Your task to perform on an android device: Search for Italian restaurants on Maps Image 0: 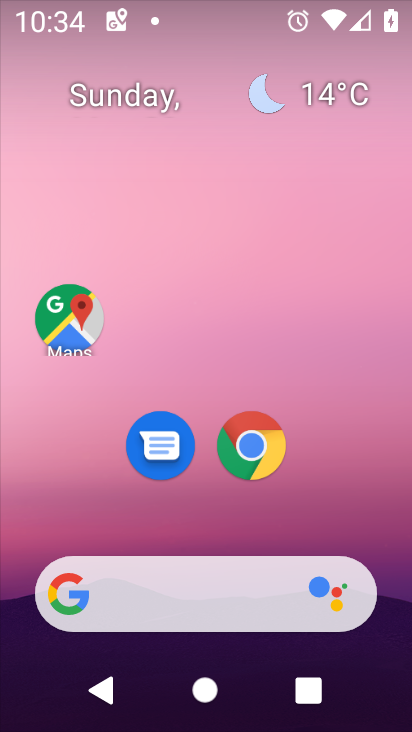
Step 0: drag from (205, 471) to (247, 186)
Your task to perform on an android device: Search for Italian restaurants on Maps Image 1: 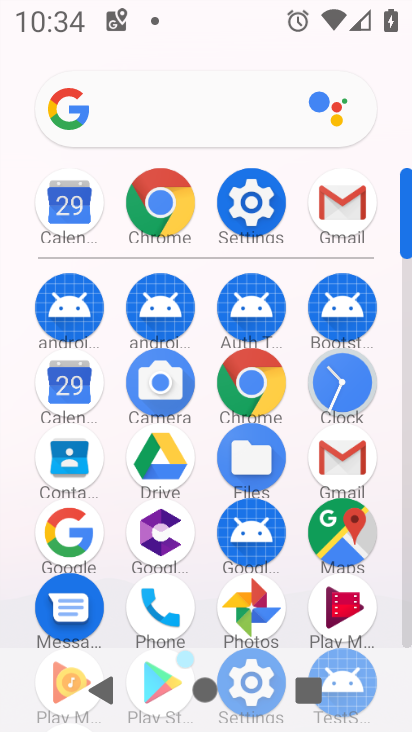
Step 1: click (326, 551)
Your task to perform on an android device: Search for Italian restaurants on Maps Image 2: 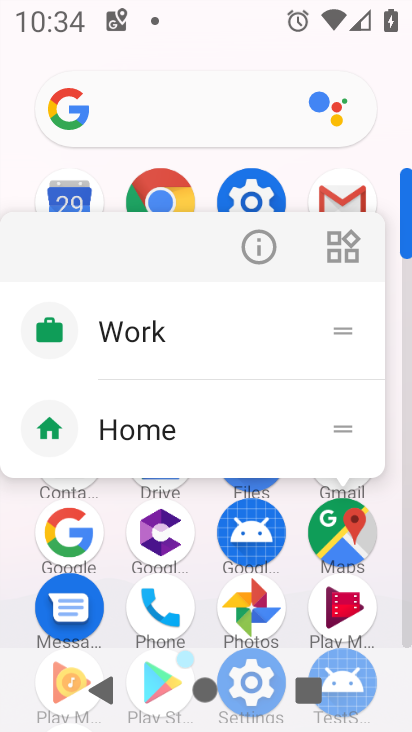
Step 2: click (260, 236)
Your task to perform on an android device: Search for Italian restaurants on Maps Image 3: 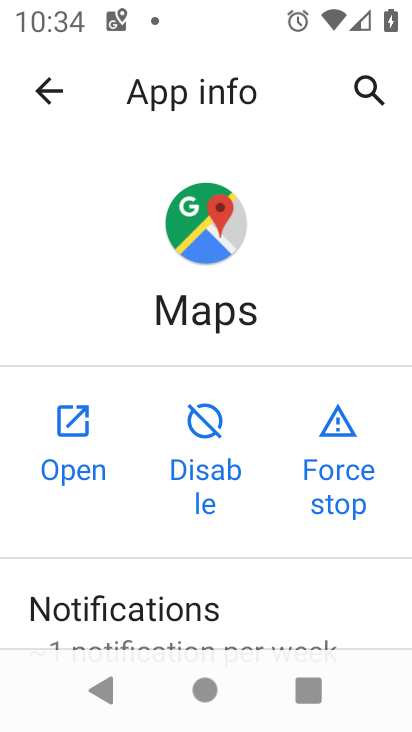
Step 3: click (53, 452)
Your task to perform on an android device: Search for Italian restaurants on Maps Image 4: 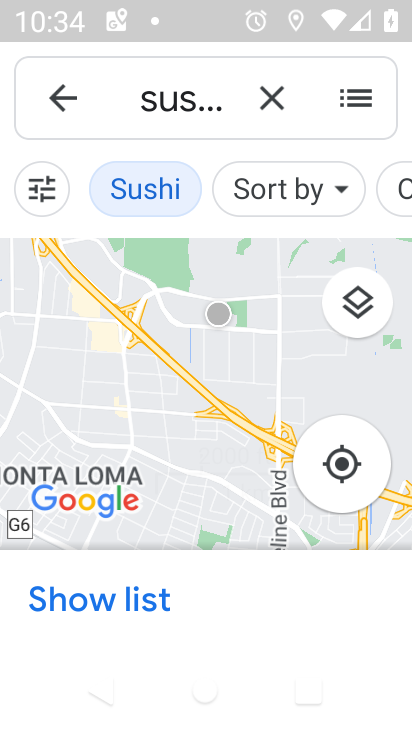
Step 4: click (287, 96)
Your task to perform on an android device: Search for Italian restaurants on Maps Image 5: 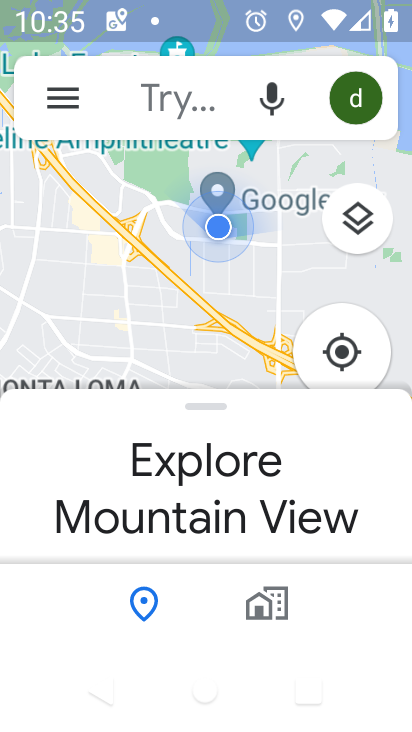
Step 5: click (145, 93)
Your task to perform on an android device: Search for Italian restaurants on Maps Image 6: 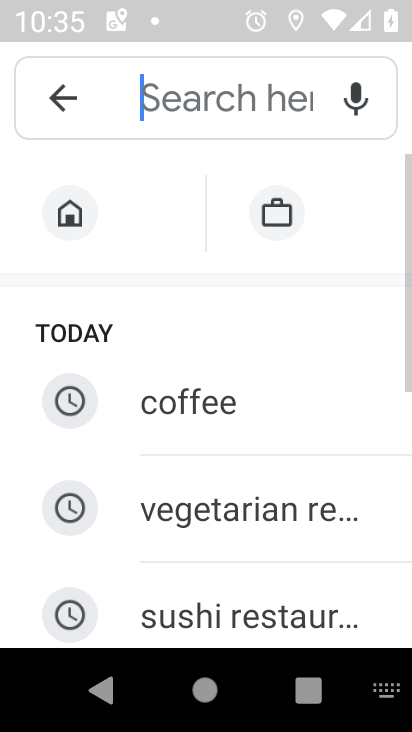
Step 6: drag from (250, 414) to (292, 163)
Your task to perform on an android device: Search for Italian restaurants on Maps Image 7: 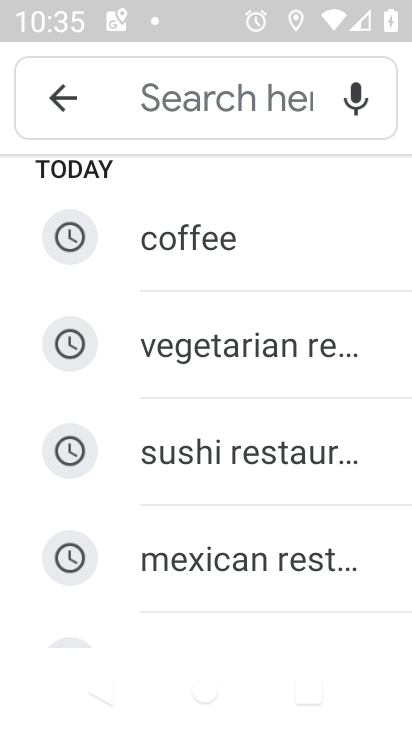
Step 7: drag from (237, 531) to (229, 218)
Your task to perform on an android device: Search for Italian restaurants on Maps Image 8: 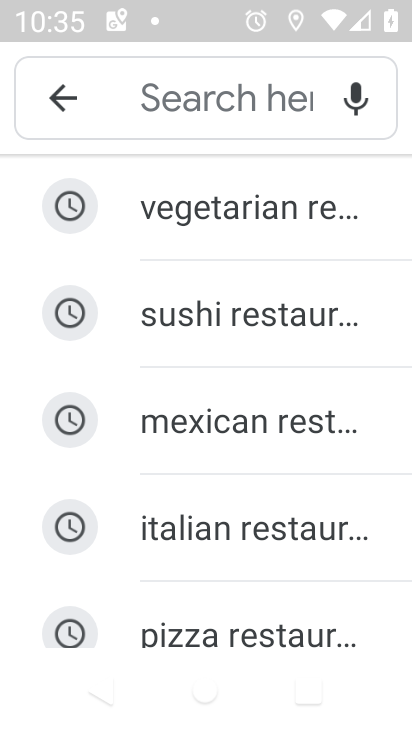
Step 8: click (209, 530)
Your task to perform on an android device: Search for Italian restaurants on Maps Image 9: 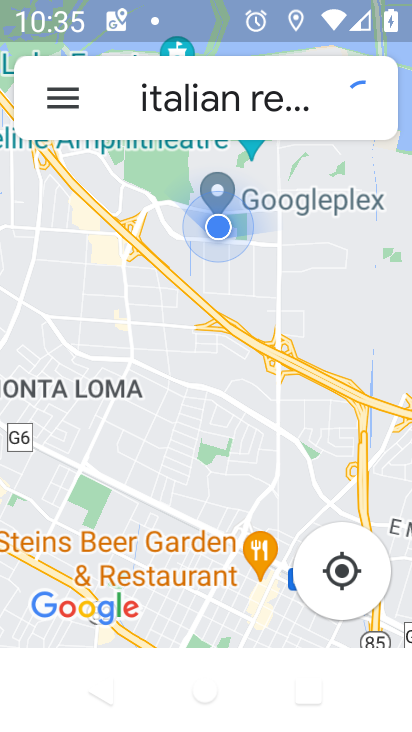
Step 9: task complete